Your task to perform on an android device: toggle improve location accuracy Image 0: 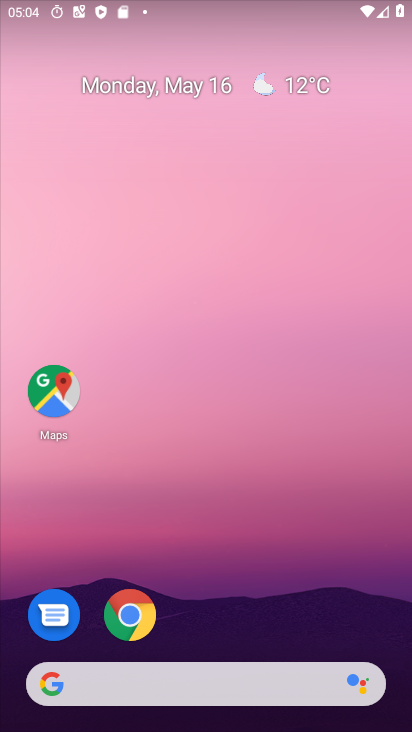
Step 0: drag from (367, 642) to (144, 52)
Your task to perform on an android device: toggle improve location accuracy Image 1: 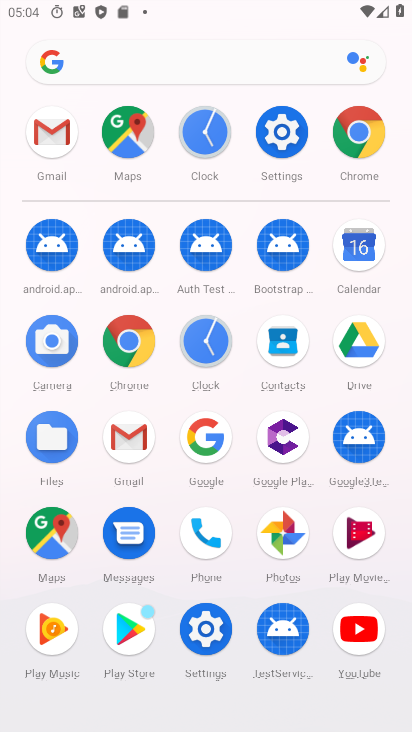
Step 1: click (289, 138)
Your task to perform on an android device: toggle improve location accuracy Image 2: 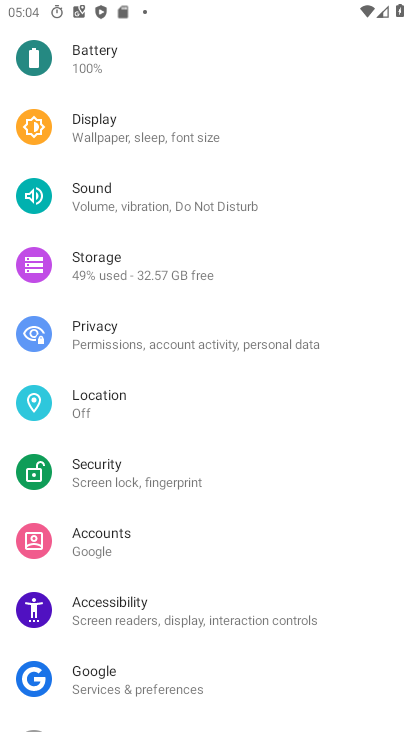
Step 2: drag from (159, 521) to (182, 111)
Your task to perform on an android device: toggle improve location accuracy Image 3: 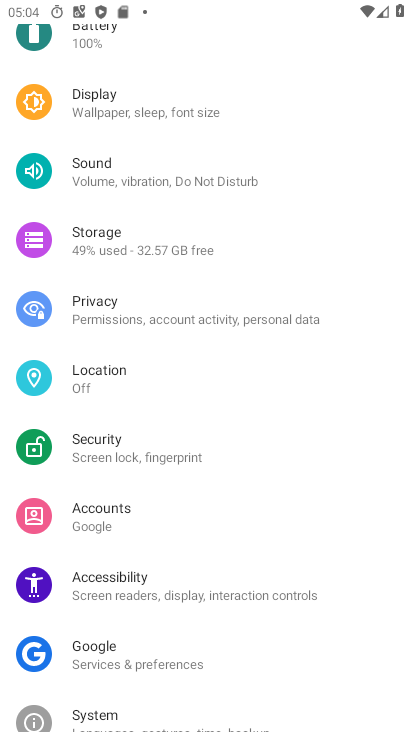
Step 3: drag from (157, 570) to (187, 174)
Your task to perform on an android device: toggle improve location accuracy Image 4: 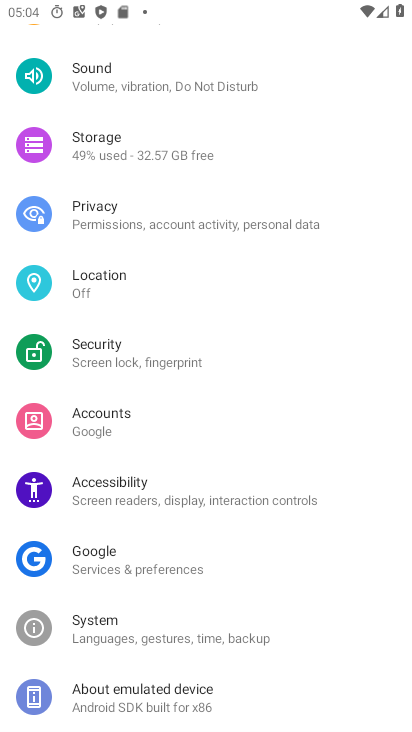
Step 4: click (112, 36)
Your task to perform on an android device: toggle improve location accuracy Image 5: 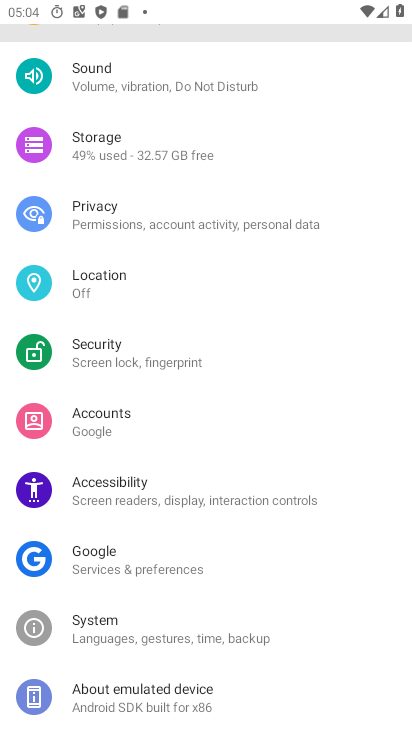
Step 5: drag from (160, 411) to (131, 67)
Your task to perform on an android device: toggle improve location accuracy Image 6: 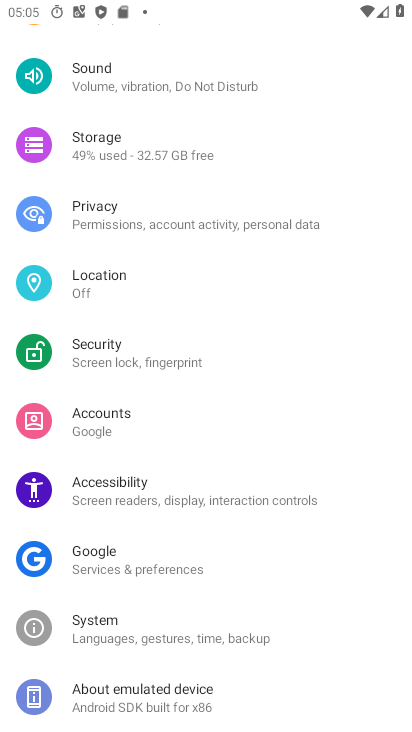
Step 6: drag from (162, 450) to (171, 3)
Your task to perform on an android device: toggle improve location accuracy Image 7: 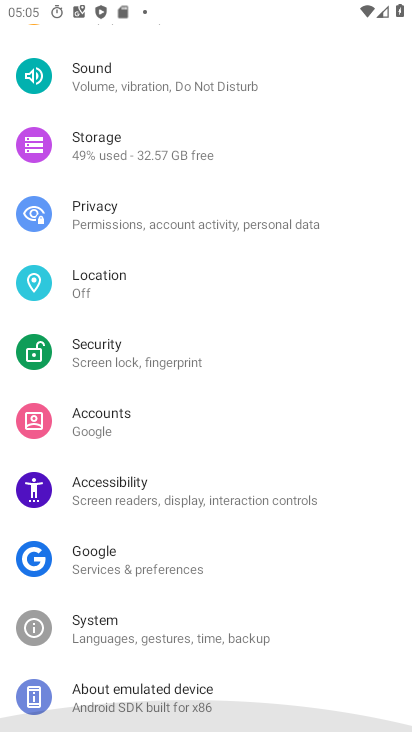
Step 7: drag from (187, 372) to (179, 53)
Your task to perform on an android device: toggle improve location accuracy Image 8: 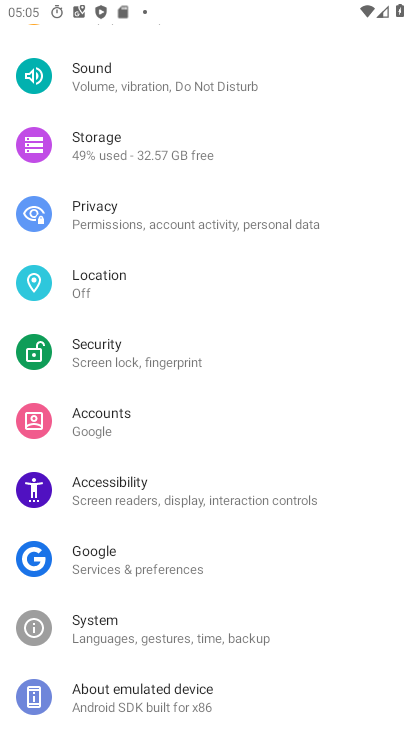
Step 8: drag from (134, 568) to (172, 75)
Your task to perform on an android device: toggle improve location accuracy Image 9: 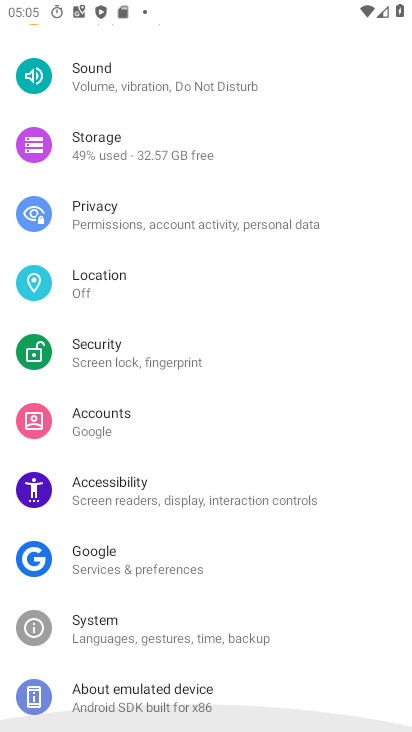
Step 9: drag from (170, 314) to (140, 92)
Your task to perform on an android device: toggle improve location accuracy Image 10: 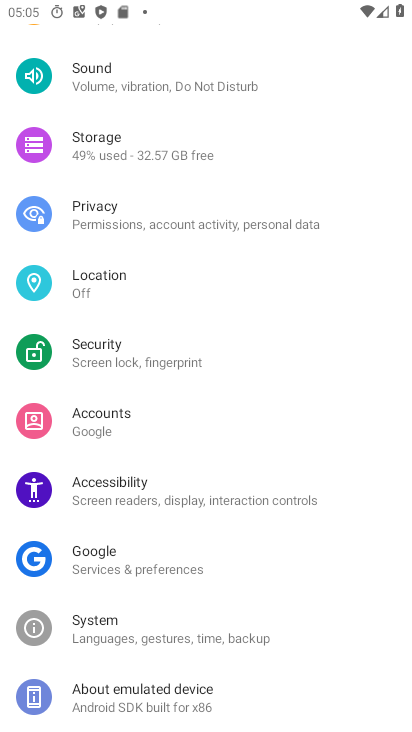
Step 10: drag from (126, 165) to (126, 665)
Your task to perform on an android device: toggle improve location accuracy Image 11: 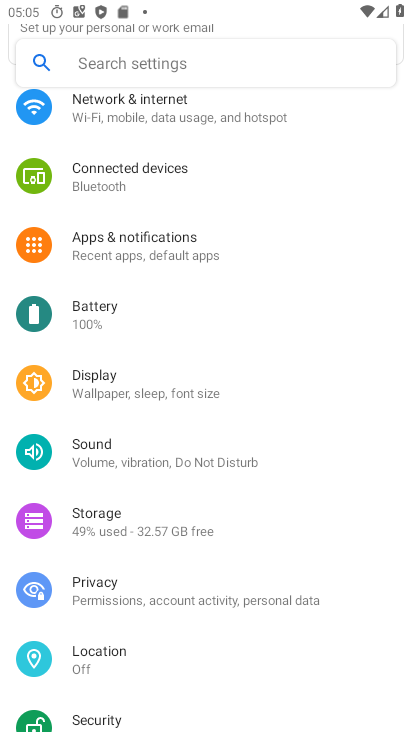
Step 11: click (87, 647)
Your task to perform on an android device: toggle improve location accuracy Image 12: 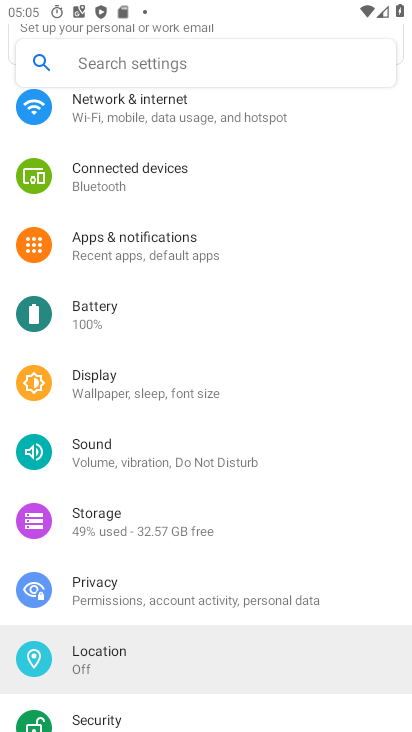
Step 12: click (88, 647)
Your task to perform on an android device: toggle improve location accuracy Image 13: 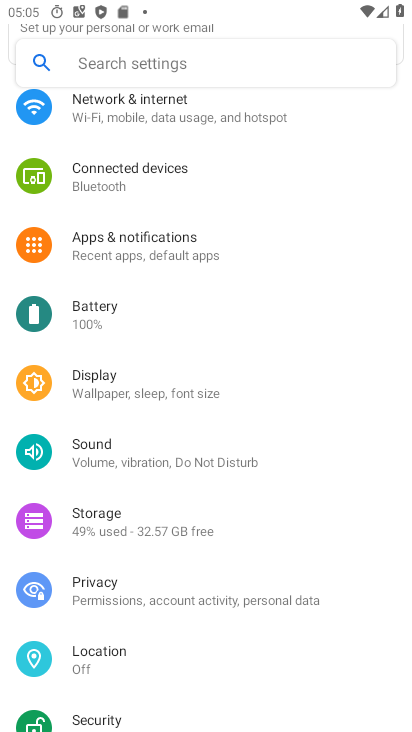
Step 13: click (88, 647)
Your task to perform on an android device: toggle improve location accuracy Image 14: 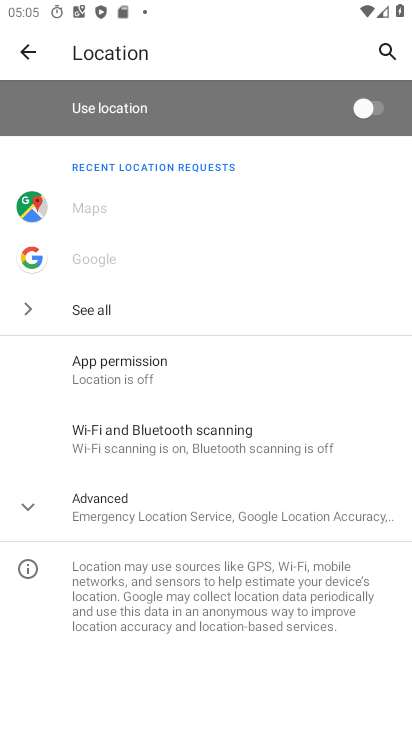
Step 14: click (163, 516)
Your task to perform on an android device: toggle improve location accuracy Image 15: 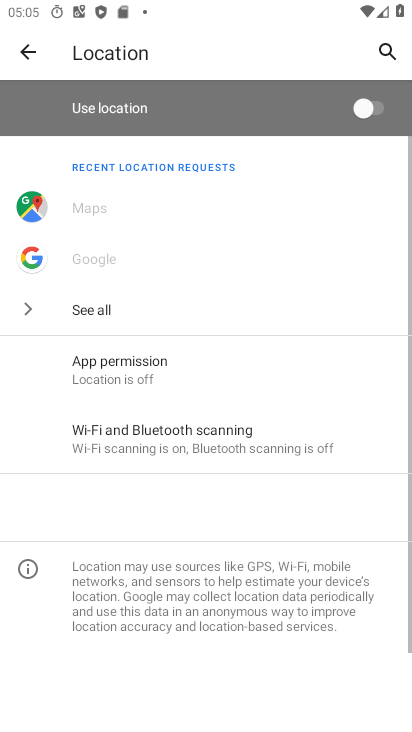
Step 15: click (164, 515)
Your task to perform on an android device: toggle improve location accuracy Image 16: 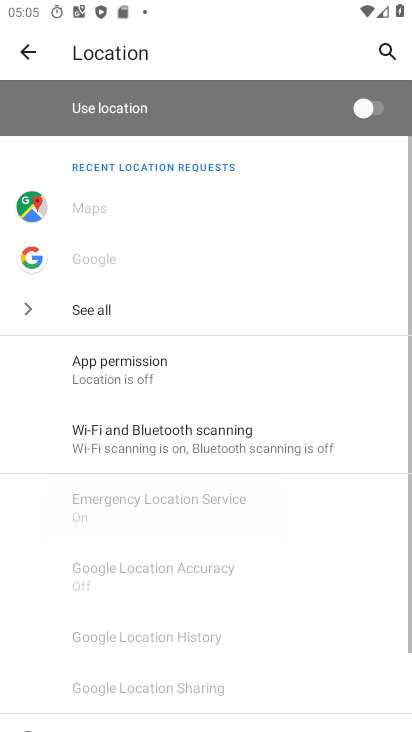
Step 16: click (164, 515)
Your task to perform on an android device: toggle improve location accuracy Image 17: 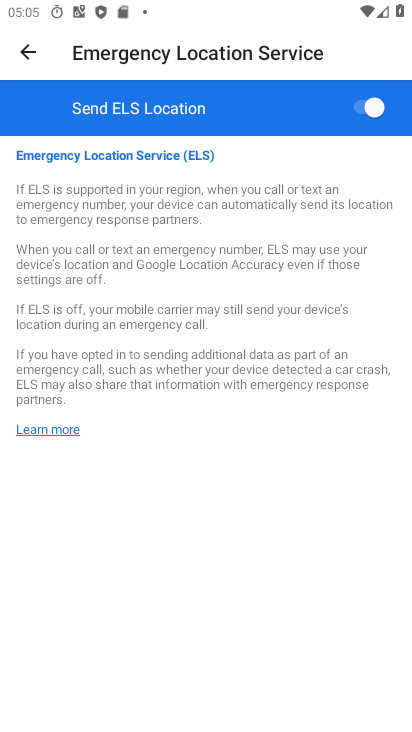
Step 17: click (22, 48)
Your task to perform on an android device: toggle improve location accuracy Image 18: 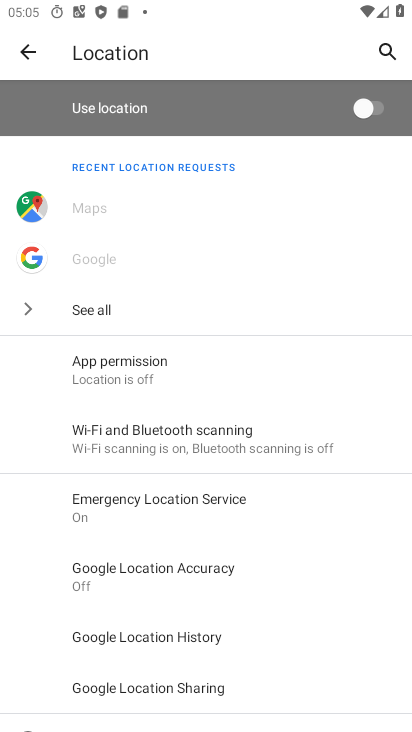
Step 18: drag from (179, 581) to (218, 143)
Your task to perform on an android device: toggle improve location accuracy Image 19: 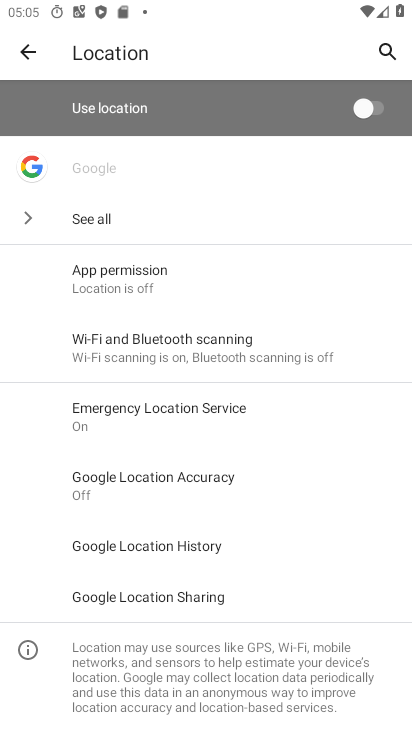
Step 19: click (139, 478)
Your task to perform on an android device: toggle improve location accuracy Image 20: 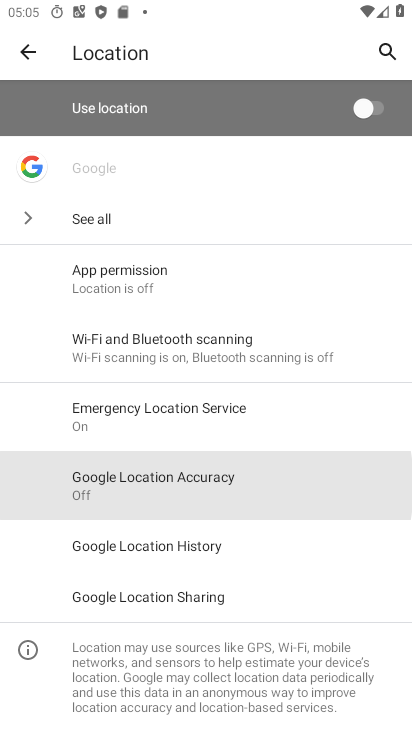
Step 20: click (138, 477)
Your task to perform on an android device: toggle improve location accuracy Image 21: 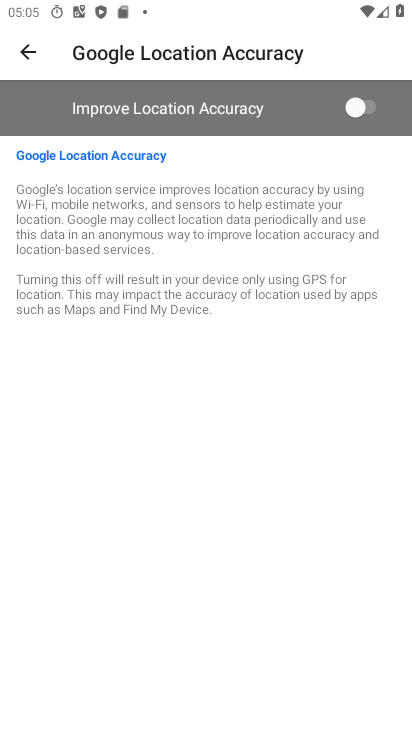
Step 21: click (347, 111)
Your task to perform on an android device: toggle improve location accuracy Image 22: 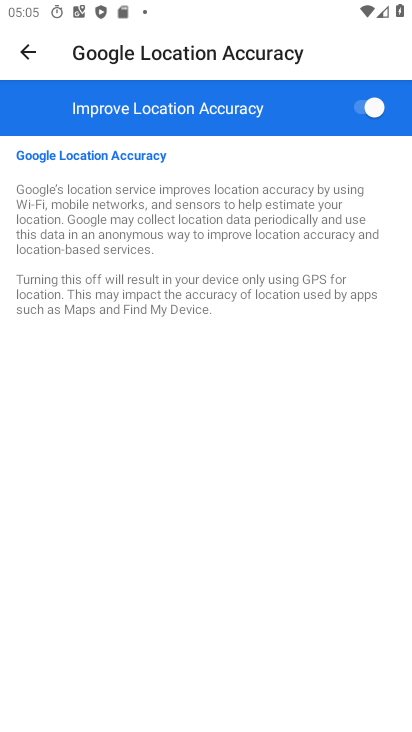
Step 22: task complete